Your task to perform on an android device: Search for "dell alienware" on target, select the first entry, add it to the cart, then select checkout. Image 0: 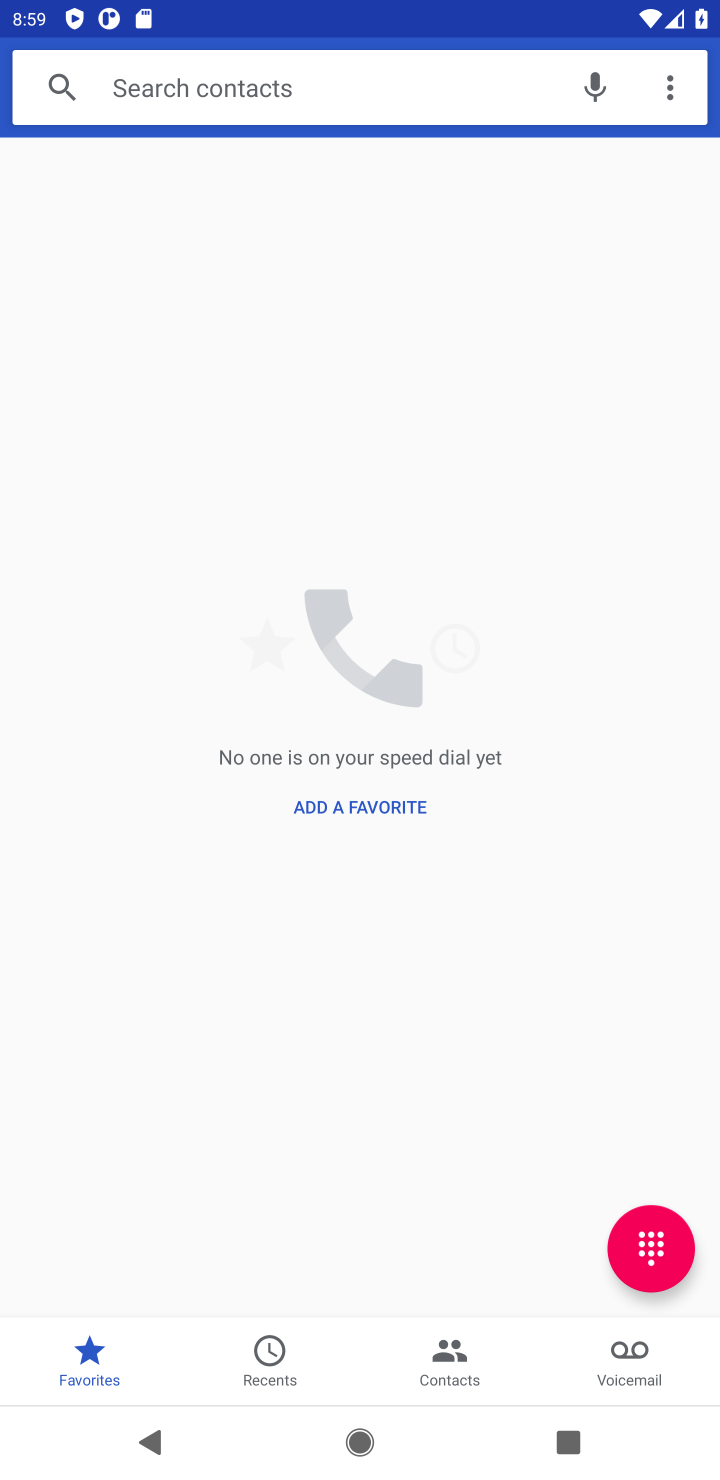
Step 0: press home button
Your task to perform on an android device: Search for "dell alienware" on target, select the first entry, add it to the cart, then select checkout. Image 1: 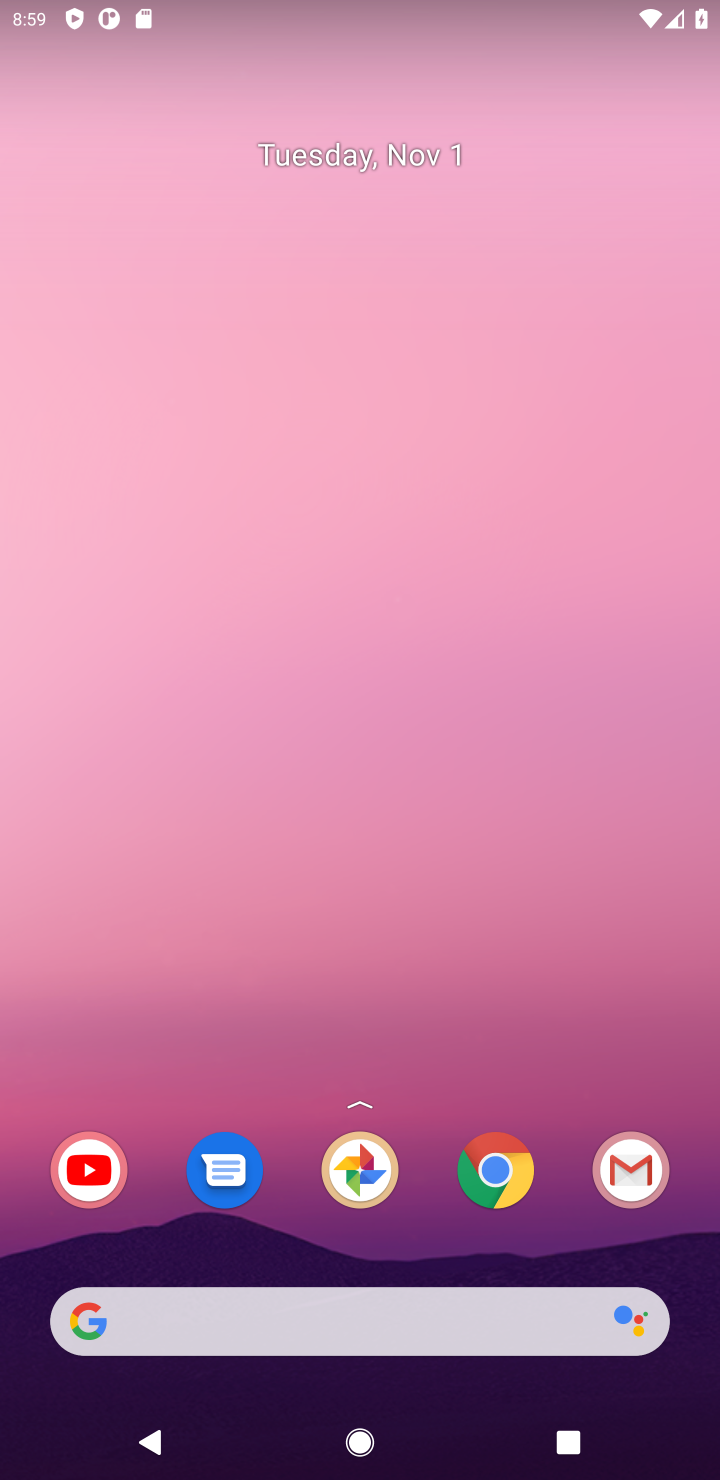
Step 1: click (485, 1199)
Your task to perform on an android device: Search for "dell alienware" on target, select the first entry, add it to the cart, then select checkout. Image 2: 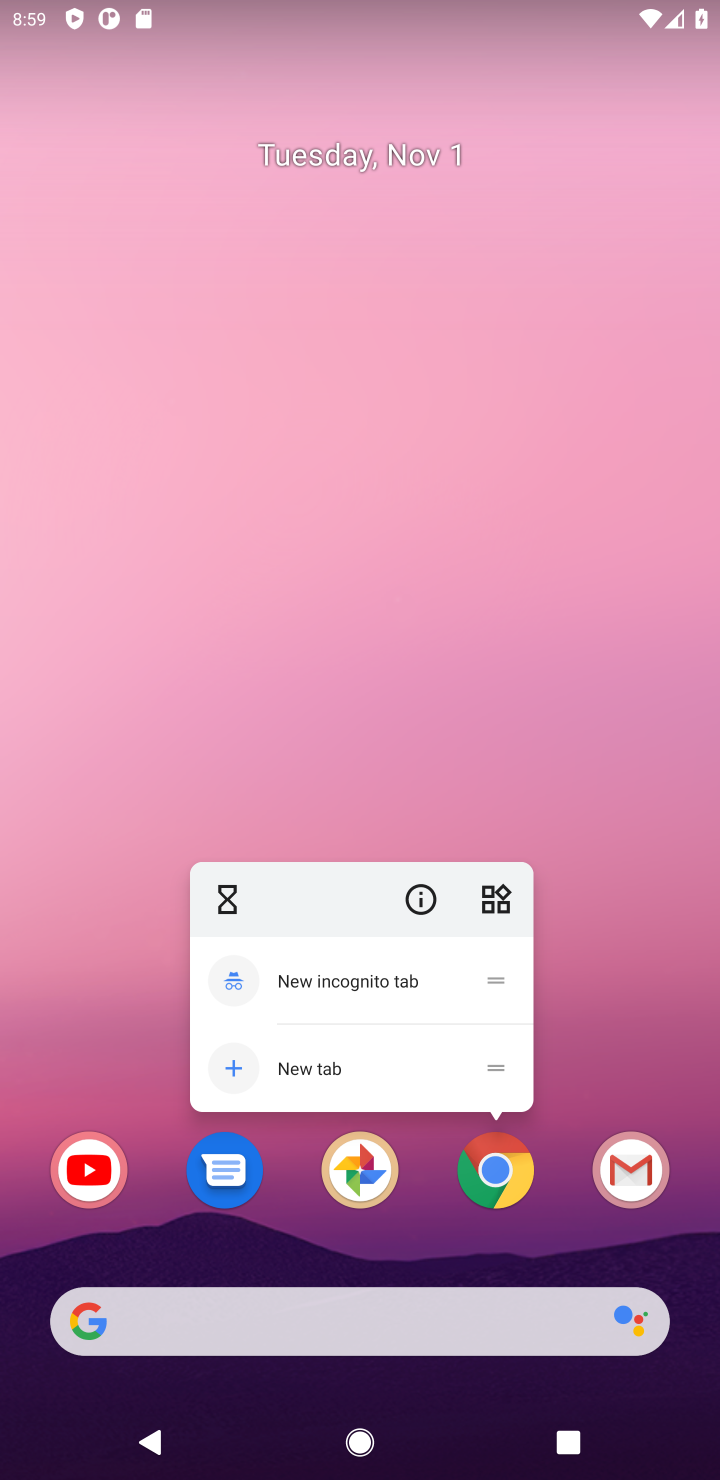
Step 2: click (501, 1179)
Your task to perform on an android device: Search for "dell alienware" on target, select the first entry, add it to the cart, then select checkout. Image 3: 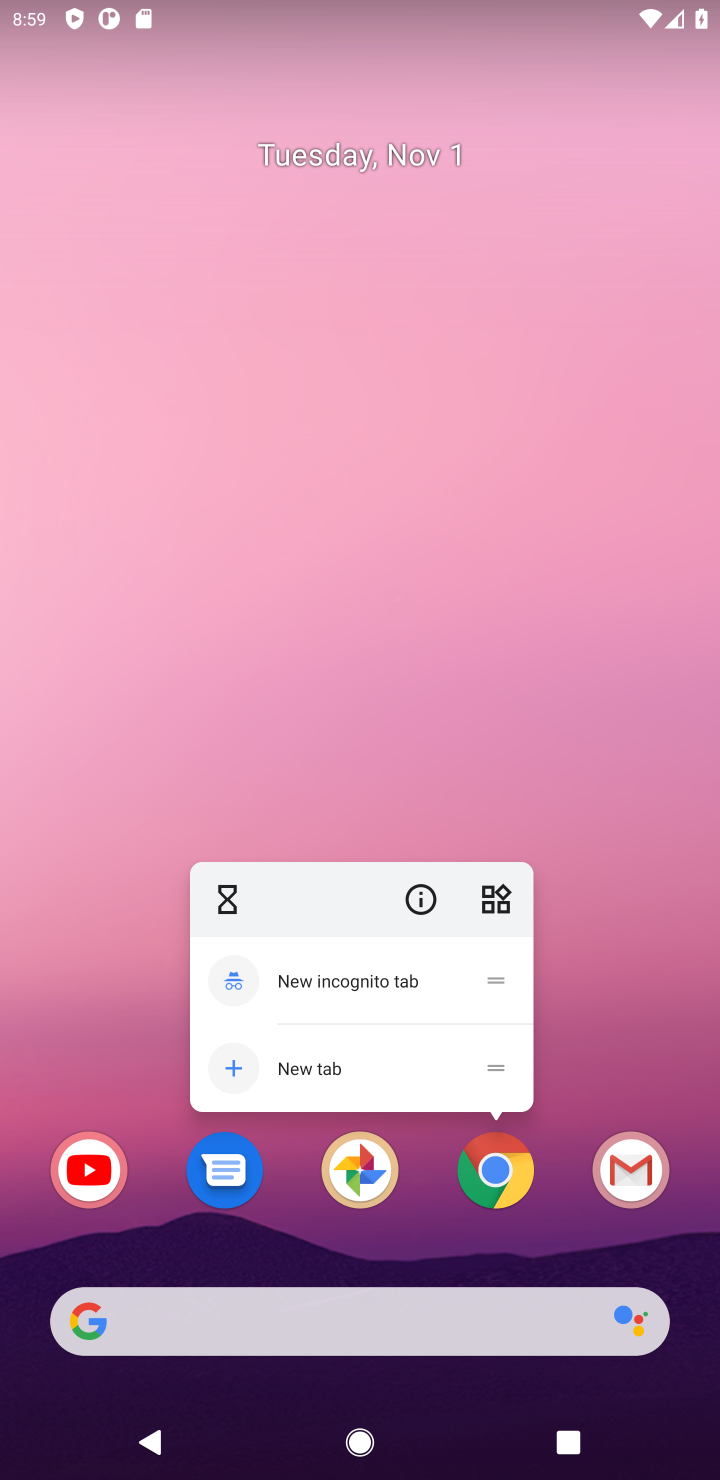
Step 3: click (510, 1167)
Your task to perform on an android device: Search for "dell alienware" on target, select the first entry, add it to the cart, then select checkout. Image 4: 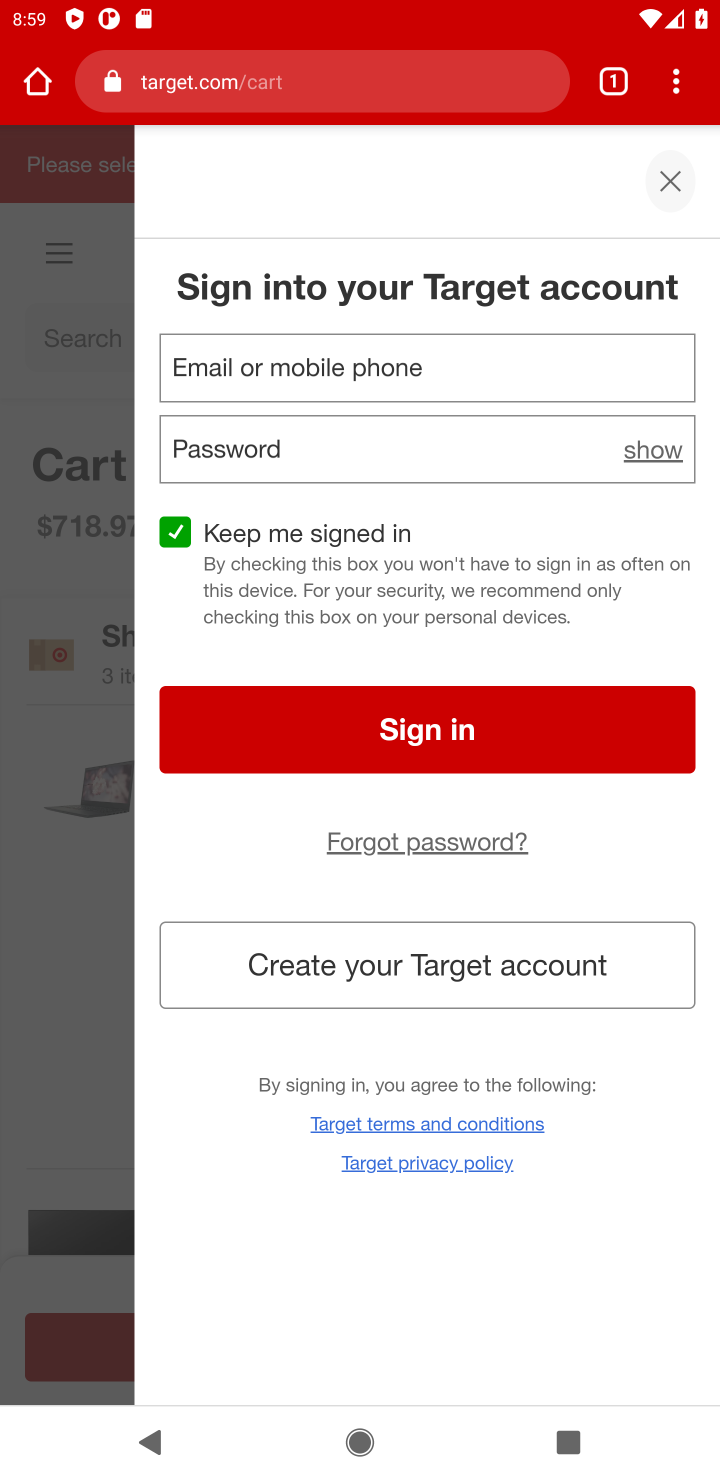
Step 4: click (308, 85)
Your task to perform on an android device: Search for "dell alienware" on target, select the first entry, add it to the cart, then select checkout. Image 5: 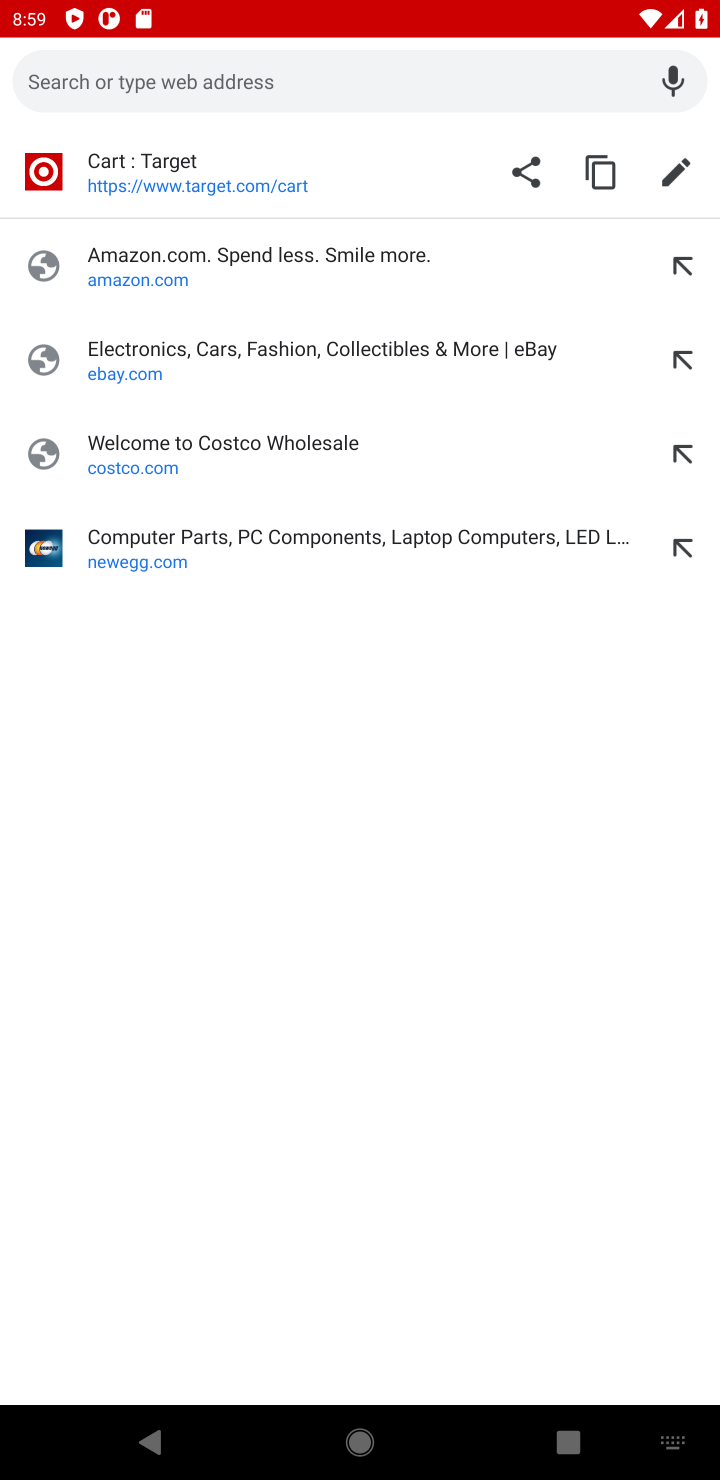
Step 5: type "target"
Your task to perform on an android device: Search for "dell alienware" on target, select the first entry, add it to the cart, then select checkout. Image 6: 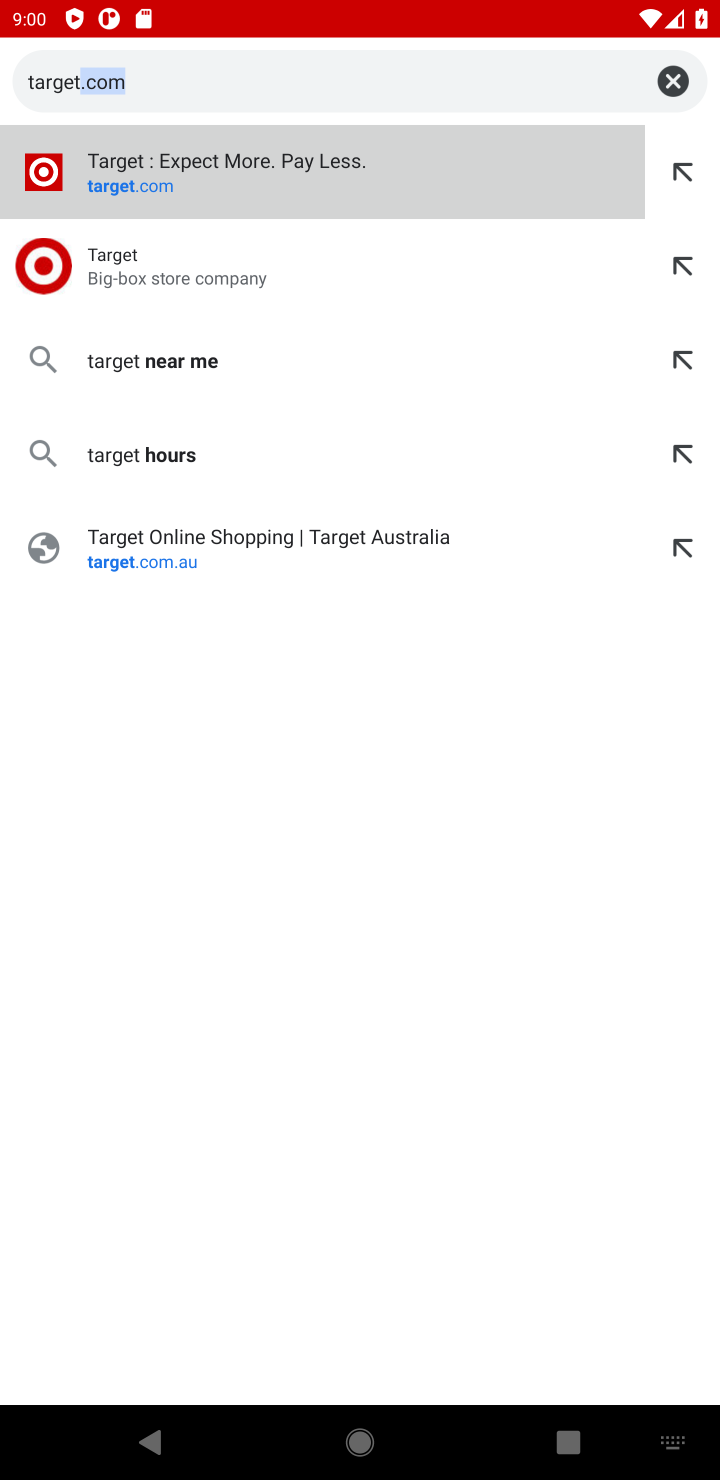
Step 6: press enter
Your task to perform on an android device: Search for "dell alienware" on target, select the first entry, add it to the cart, then select checkout. Image 7: 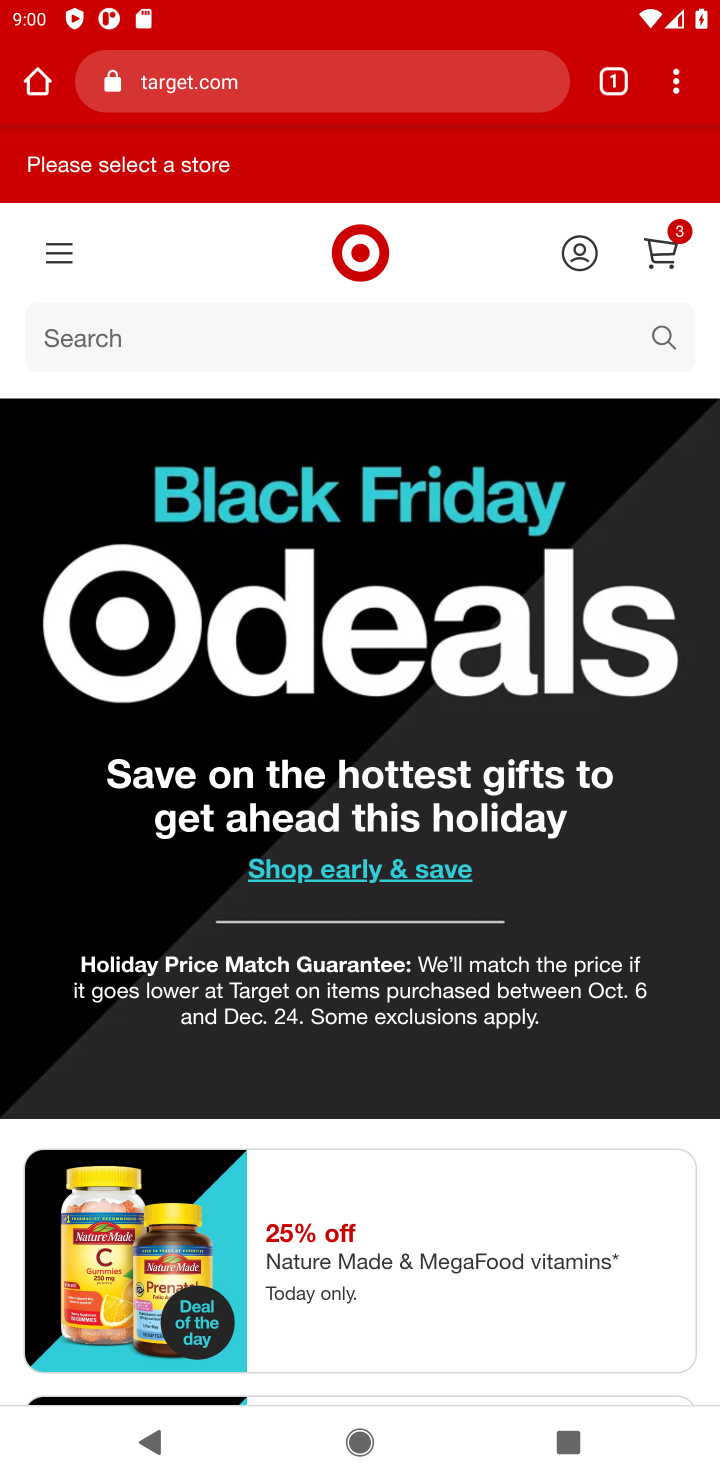
Step 7: click (266, 353)
Your task to perform on an android device: Search for "dell alienware" on target, select the first entry, add it to the cart, then select checkout. Image 8: 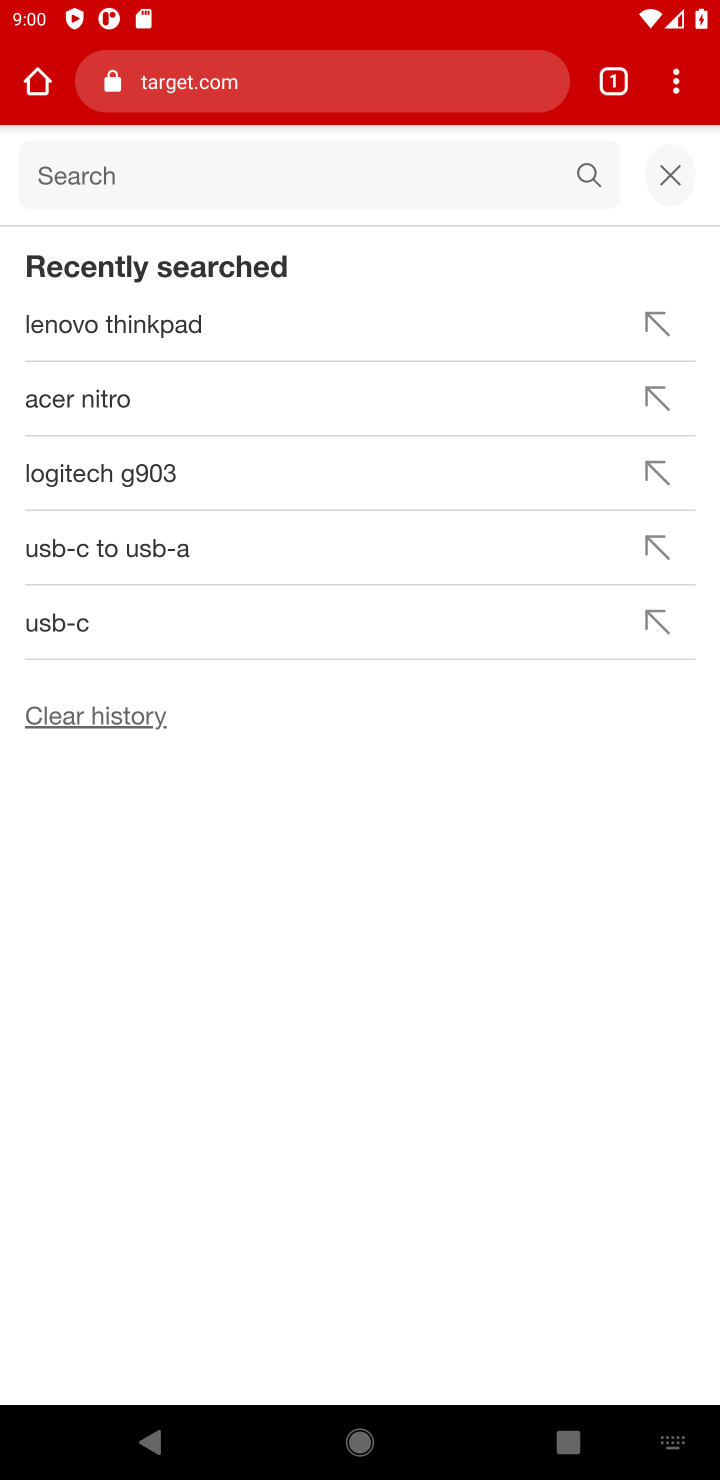
Step 8: type "dell alienware"
Your task to perform on an android device: Search for "dell alienware" on target, select the first entry, add it to the cart, then select checkout. Image 9: 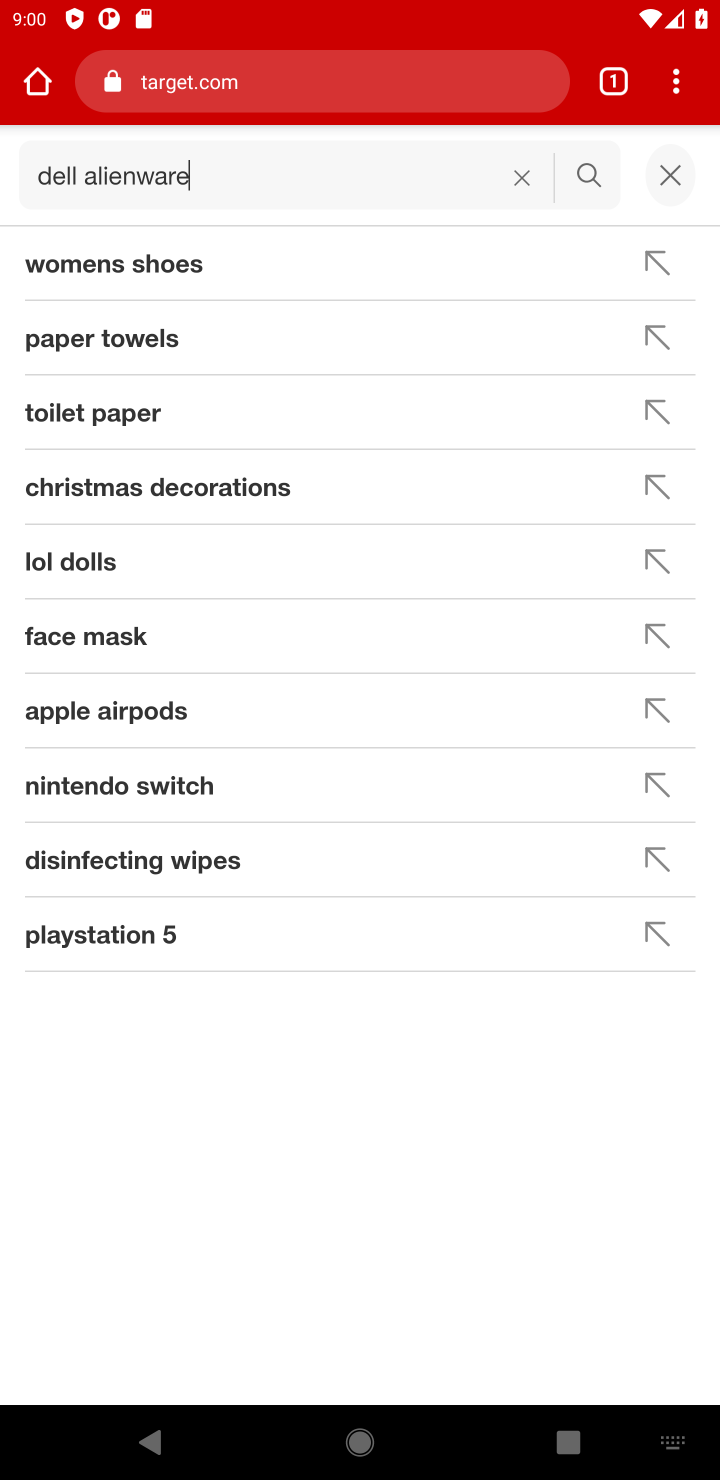
Step 9: type ""
Your task to perform on an android device: Search for "dell alienware" on target, select the first entry, add it to the cart, then select checkout. Image 10: 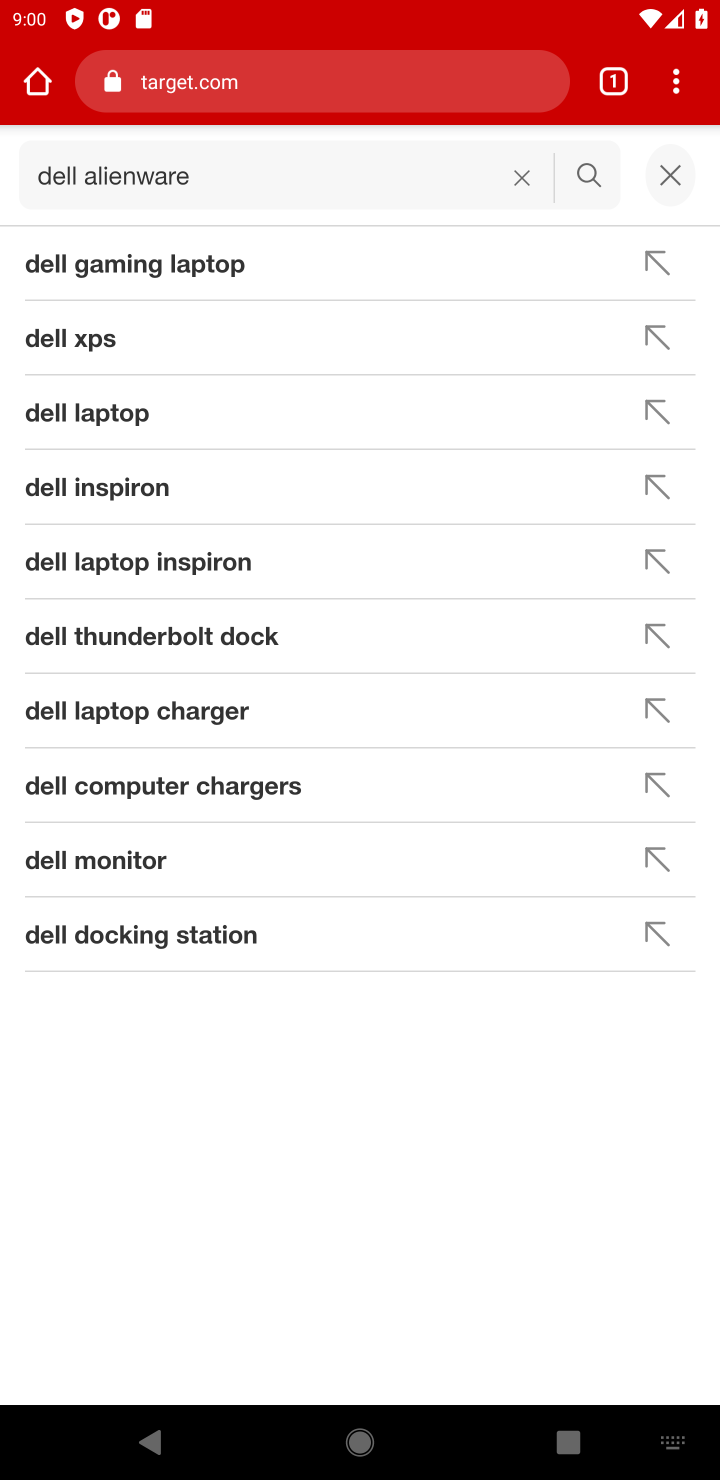
Step 10: press enter
Your task to perform on an android device: Search for "dell alienware" on target, select the first entry, add it to the cart, then select checkout. Image 11: 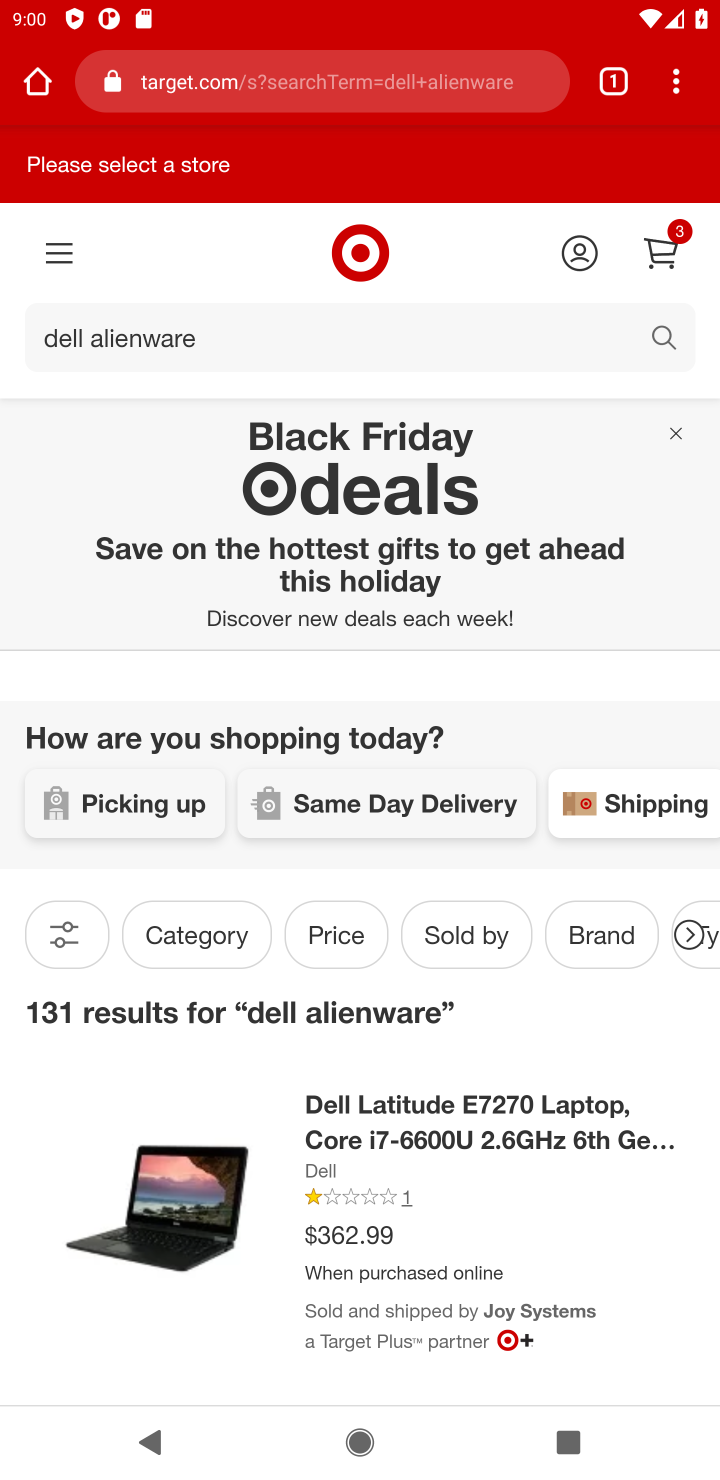
Step 11: drag from (537, 1251) to (524, 944)
Your task to perform on an android device: Search for "dell alienware" on target, select the first entry, add it to the cart, then select checkout. Image 12: 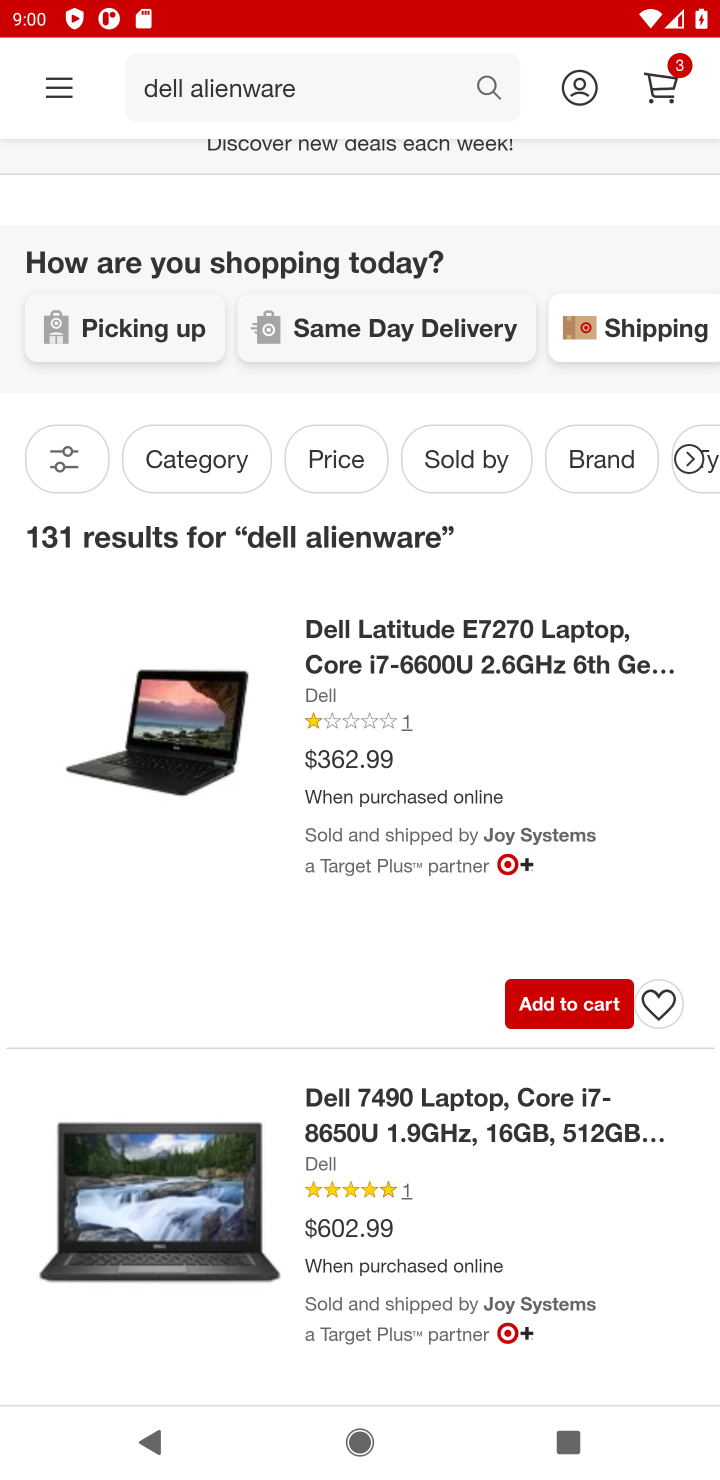
Step 12: click (425, 656)
Your task to perform on an android device: Search for "dell alienware" on target, select the first entry, add it to the cart, then select checkout. Image 13: 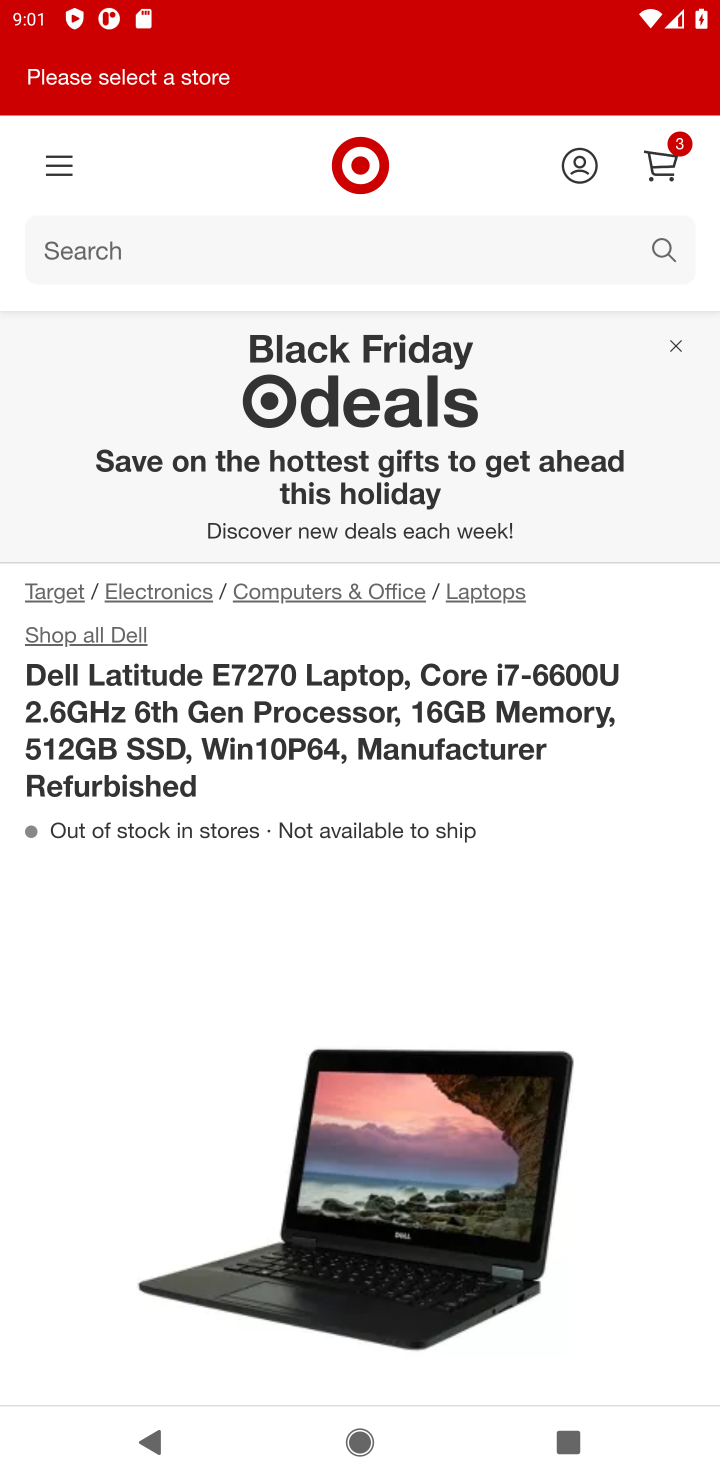
Step 13: drag from (529, 855) to (508, 283)
Your task to perform on an android device: Search for "dell alienware" on target, select the first entry, add it to the cart, then select checkout. Image 14: 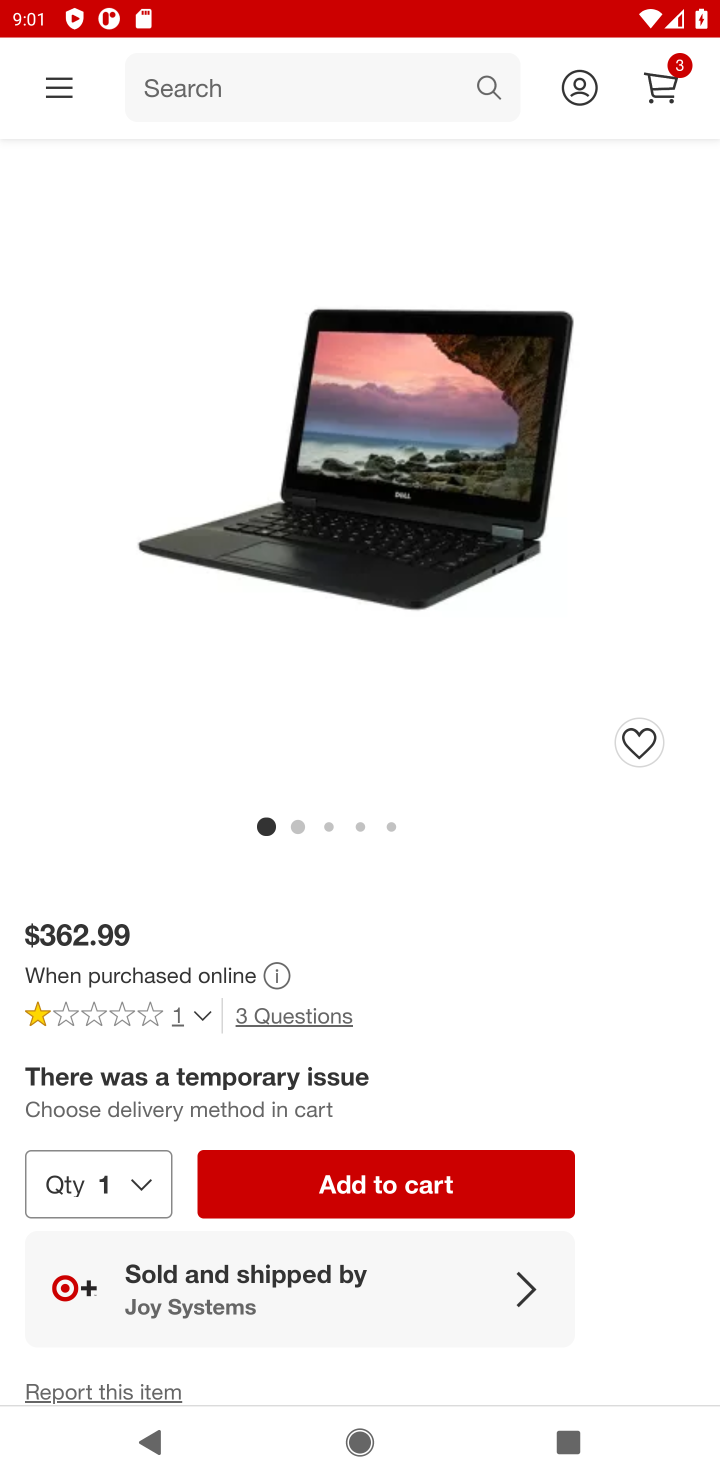
Step 14: click (430, 1203)
Your task to perform on an android device: Search for "dell alienware" on target, select the first entry, add it to the cart, then select checkout. Image 15: 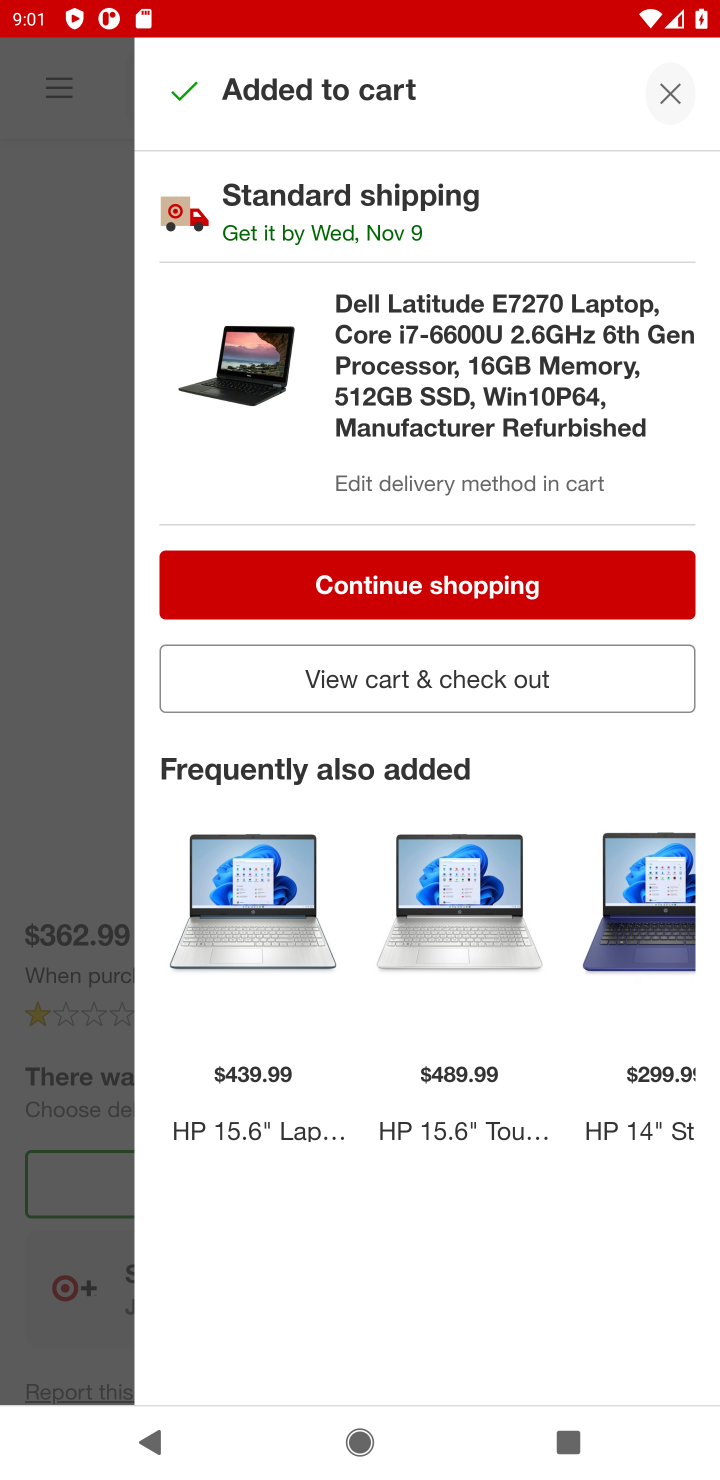
Step 15: click (504, 687)
Your task to perform on an android device: Search for "dell alienware" on target, select the first entry, add it to the cart, then select checkout. Image 16: 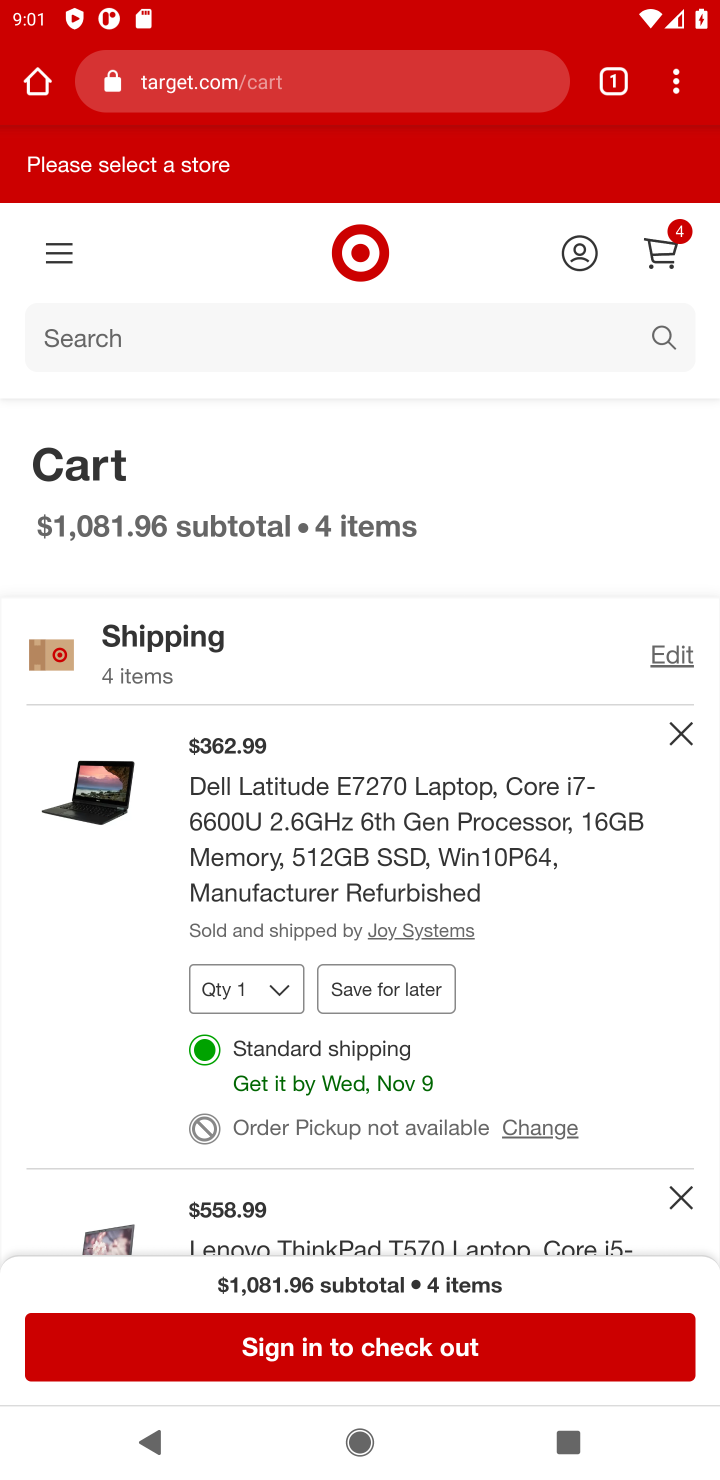
Step 16: drag from (517, 959) to (527, 833)
Your task to perform on an android device: Search for "dell alienware" on target, select the first entry, add it to the cart, then select checkout. Image 17: 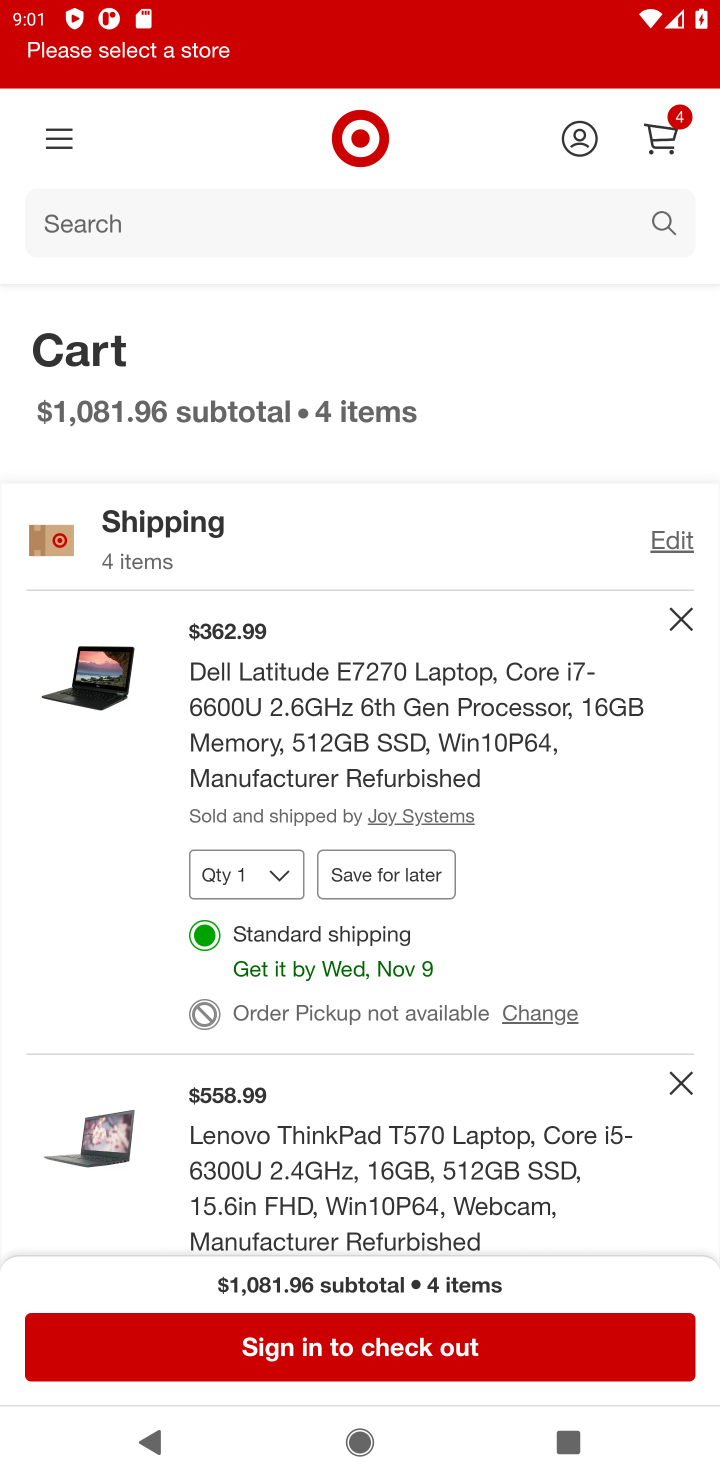
Step 17: click (458, 1344)
Your task to perform on an android device: Search for "dell alienware" on target, select the first entry, add it to the cart, then select checkout. Image 18: 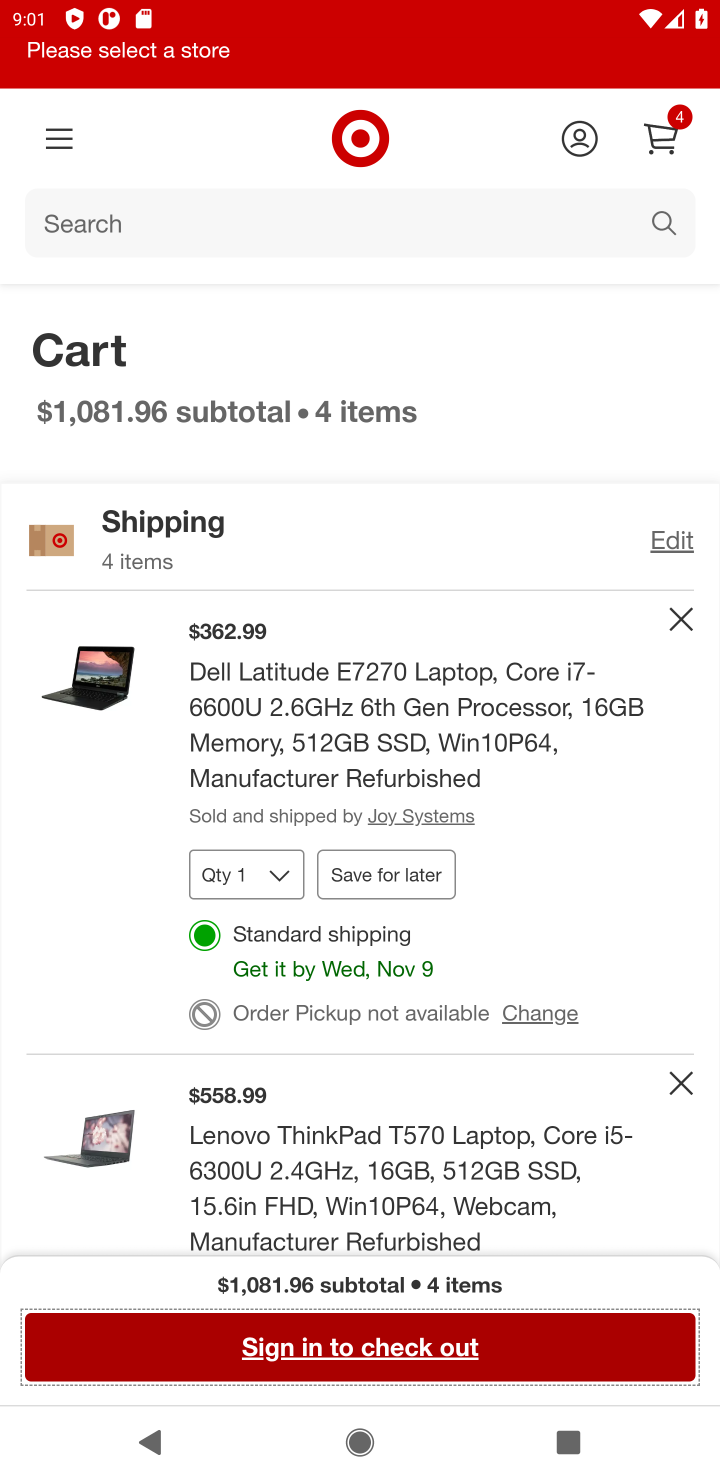
Step 18: task complete